Your task to perform on an android device: set default search engine in the chrome app Image 0: 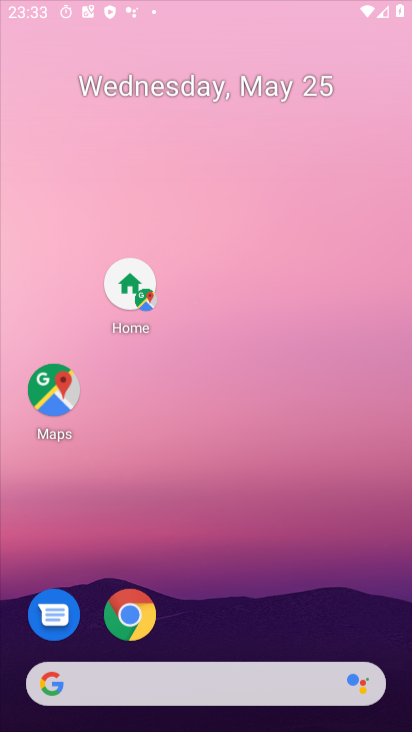
Step 0: press home button
Your task to perform on an android device: set default search engine in the chrome app Image 1: 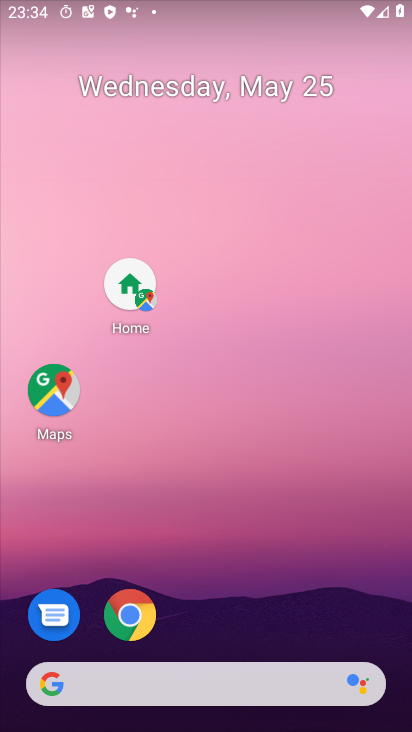
Step 1: click (130, 621)
Your task to perform on an android device: set default search engine in the chrome app Image 2: 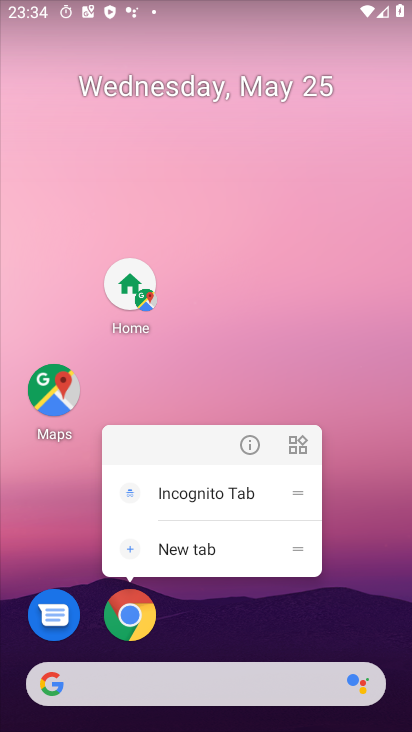
Step 2: click (142, 610)
Your task to perform on an android device: set default search engine in the chrome app Image 3: 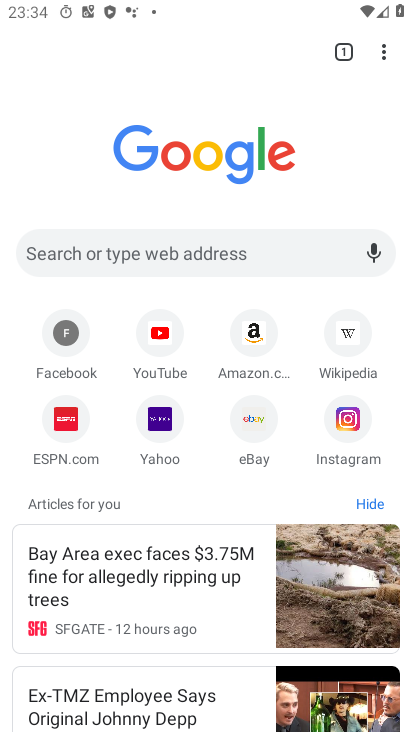
Step 3: drag from (388, 53) to (222, 435)
Your task to perform on an android device: set default search engine in the chrome app Image 4: 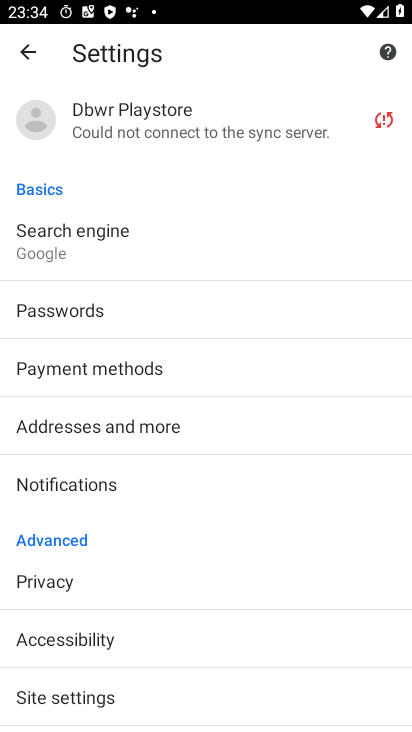
Step 4: click (72, 237)
Your task to perform on an android device: set default search engine in the chrome app Image 5: 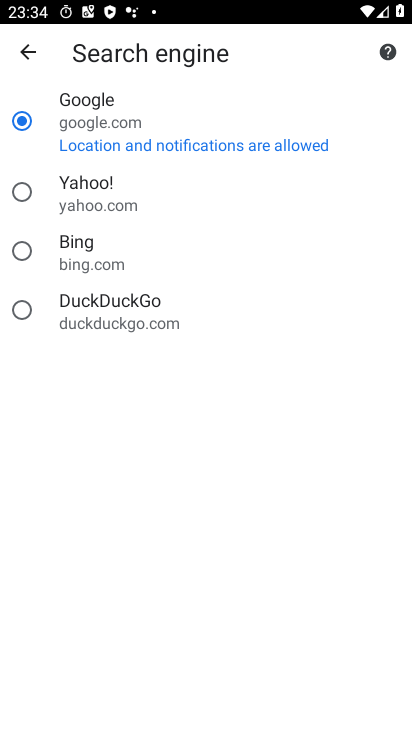
Step 5: click (29, 189)
Your task to perform on an android device: set default search engine in the chrome app Image 6: 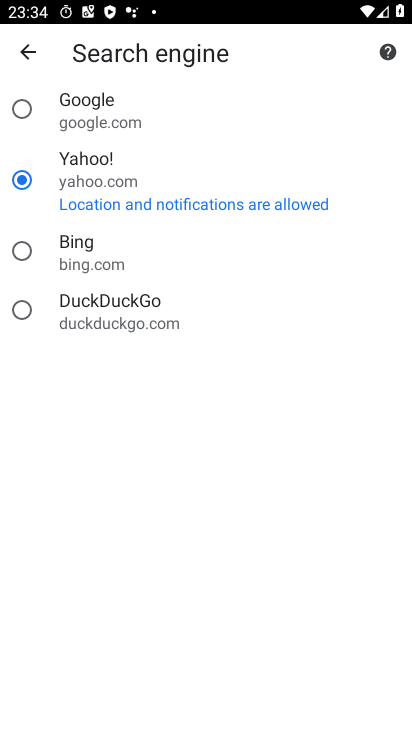
Step 6: task complete